Your task to perform on an android device: When is my next appointment? Image 0: 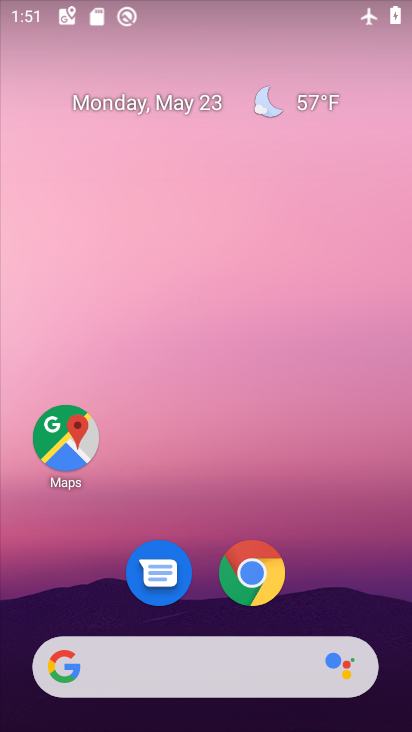
Step 0: drag from (309, 545) to (240, 48)
Your task to perform on an android device: When is my next appointment? Image 1: 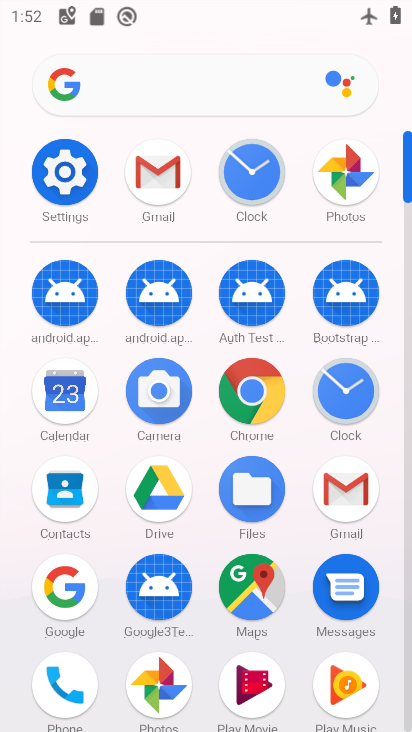
Step 1: click (62, 376)
Your task to perform on an android device: When is my next appointment? Image 2: 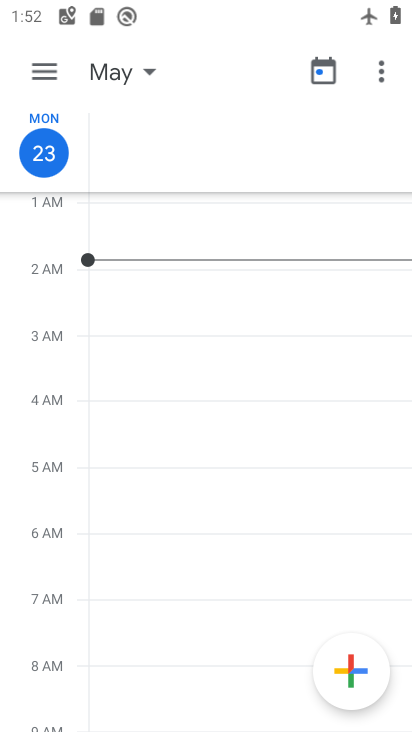
Step 2: click (39, 68)
Your task to perform on an android device: When is my next appointment? Image 3: 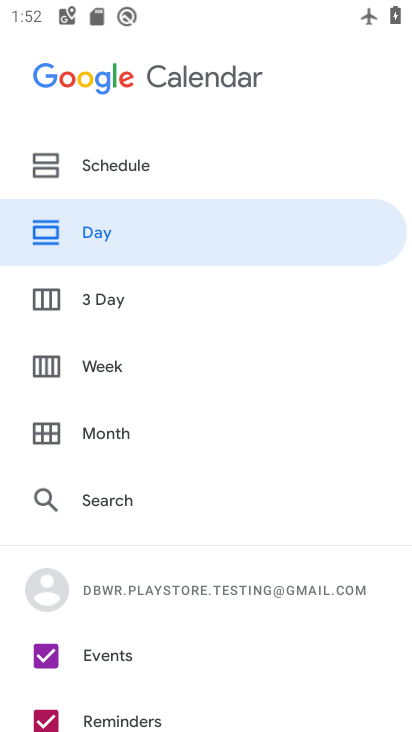
Step 3: click (74, 162)
Your task to perform on an android device: When is my next appointment? Image 4: 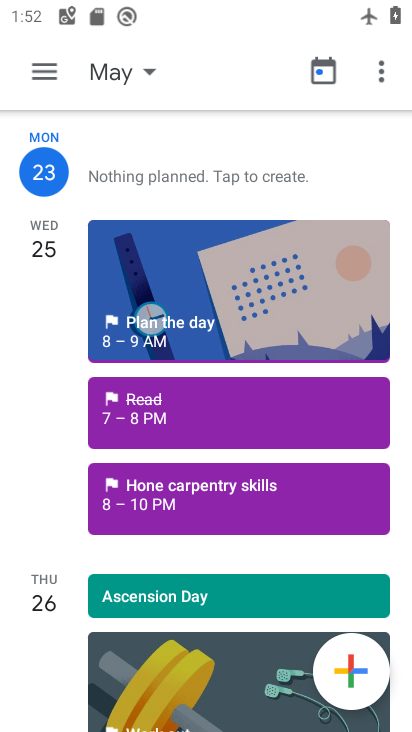
Step 4: task complete